Your task to perform on an android device: Do I have any events today? Image 0: 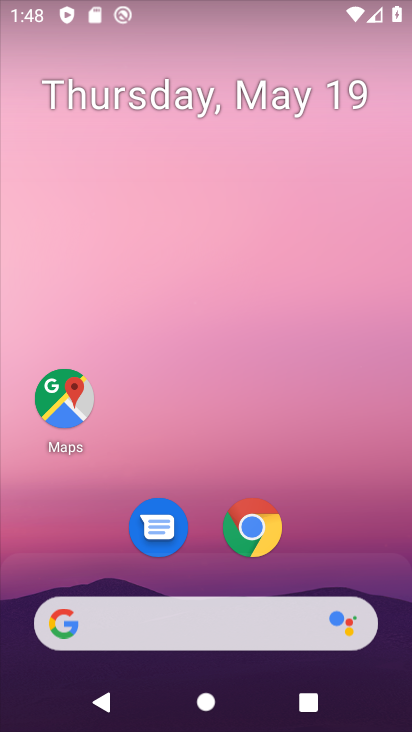
Step 0: drag from (204, 574) to (263, 113)
Your task to perform on an android device: Do I have any events today? Image 1: 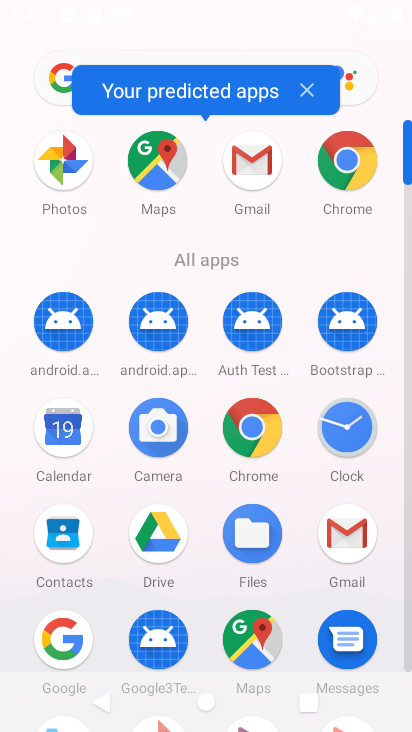
Step 1: click (54, 448)
Your task to perform on an android device: Do I have any events today? Image 2: 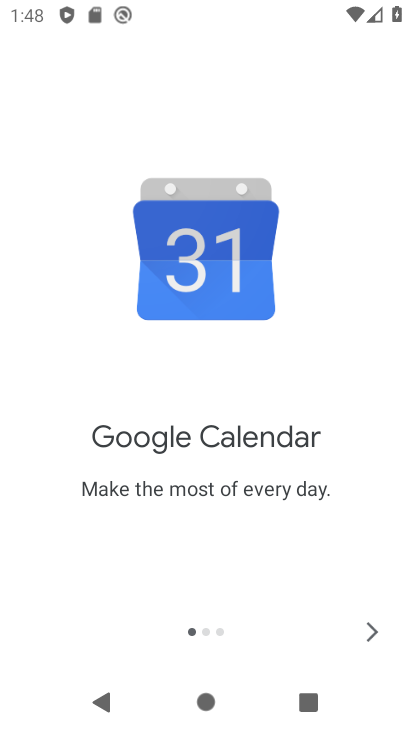
Step 2: click (367, 634)
Your task to perform on an android device: Do I have any events today? Image 3: 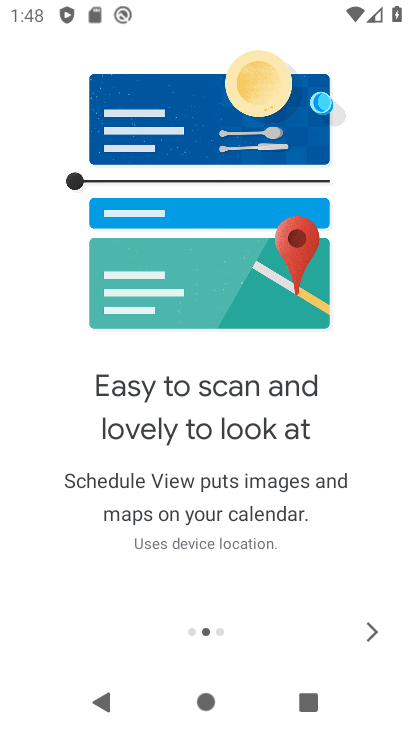
Step 3: click (367, 634)
Your task to perform on an android device: Do I have any events today? Image 4: 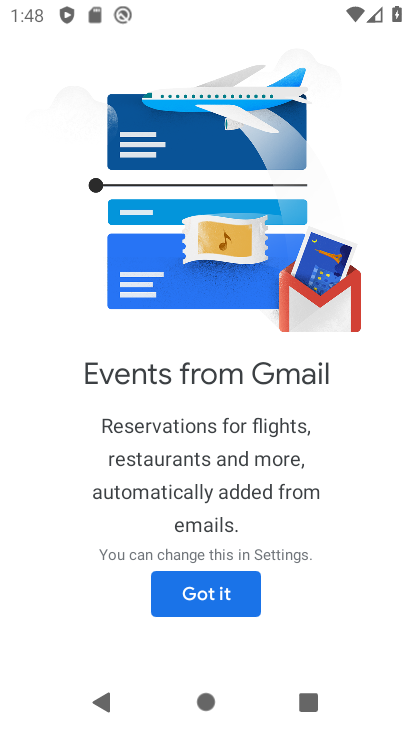
Step 4: click (238, 594)
Your task to perform on an android device: Do I have any events today? Image 5: 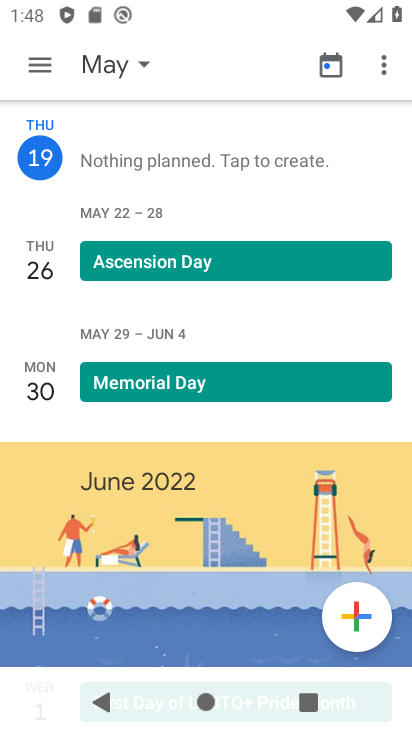
Step 5: click (32, 162)
Your task to perform on an android device: Do I have any events today? Image 6: 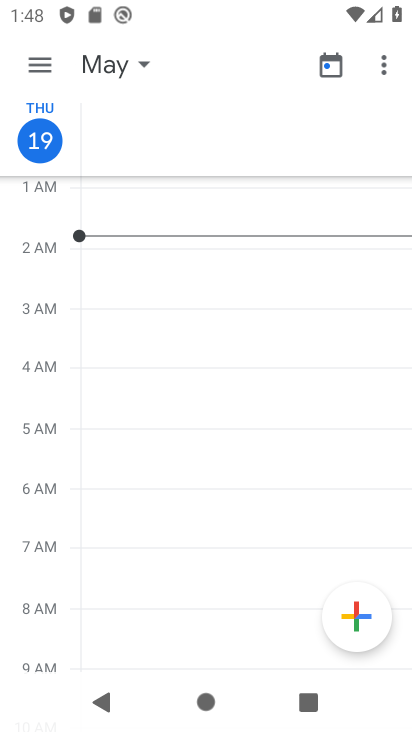
Step 6: task complete